Your task to perform on an android device: What's on my calendar tomorrow? Image 0: 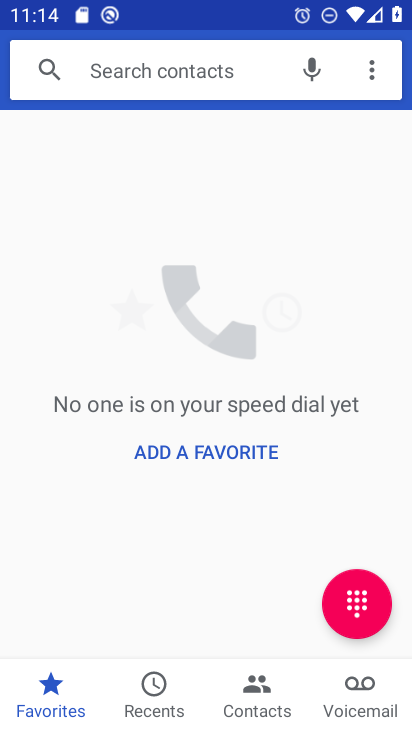
Step 0: press home button
Your task to perform on an android device: What's on my calendar tomorrow? Image 1: 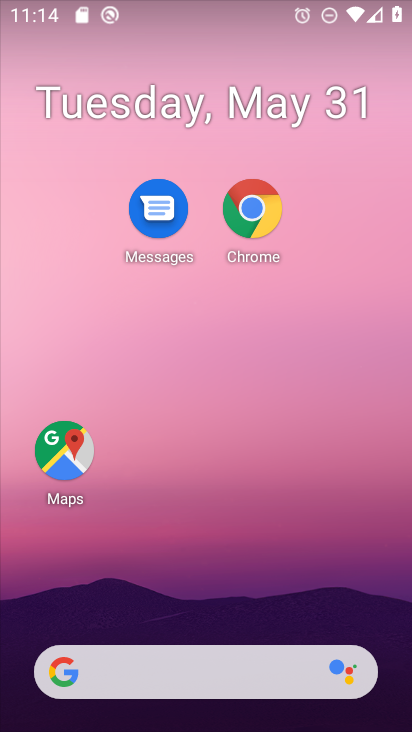
Step 1: drag from (205, 614) to (260, 38)
Your task to perform on an android device: What's on my calendar tomorrow? Image 2: 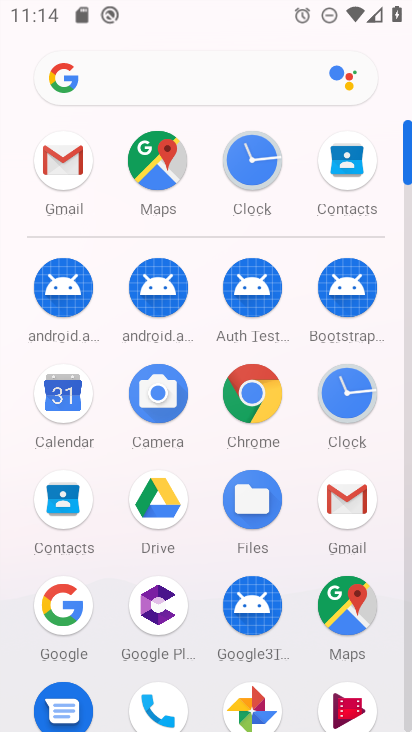
Step 2: click (61, 387)
Your task to perform on an android device: What's on my calendar tomorrow? Image 3: 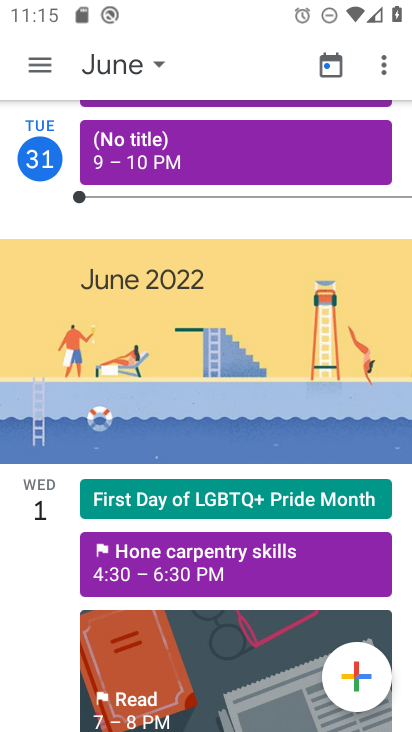
Step 3: click (50, 505)
Your task to perform on an android device: What's on my calendar tomorrow? Image 4: 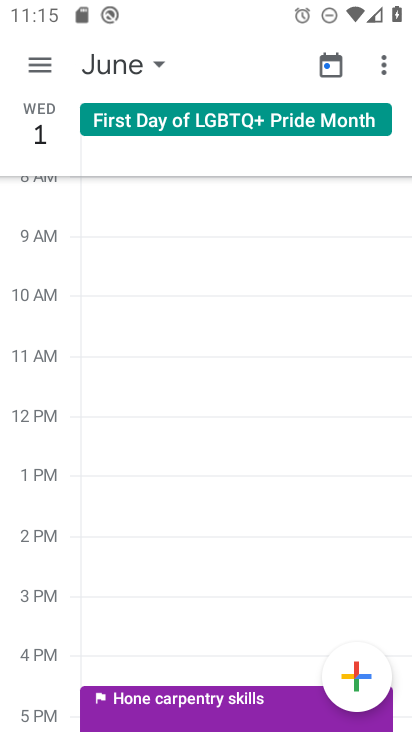
Step 4: task complete